Your task to perform on an android device: Open my contact list Image 0: 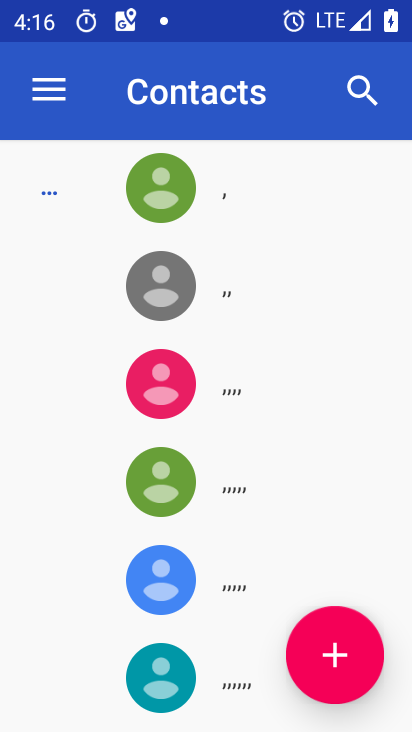
Step 0: drag from (222, 576) to (219, 165)
Your task to perform on an android device: Open my contact list Image 1: 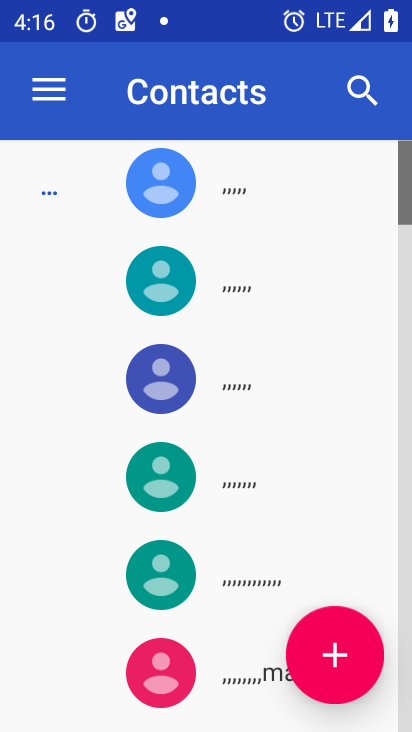
Step 1: task complete